Your task to perform on an android device: open device folders in google photos Image 0: 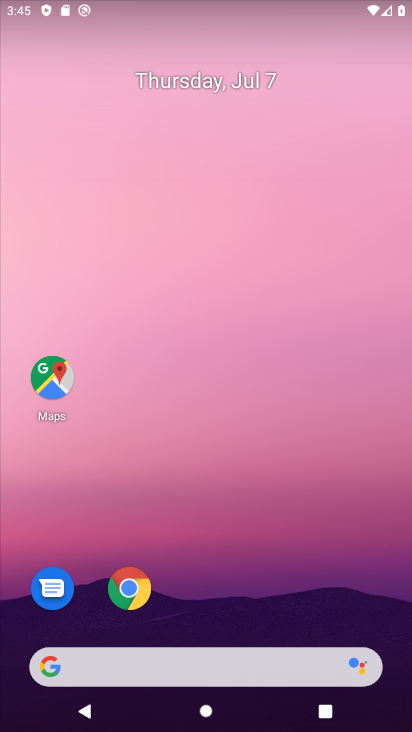
Step 0: press home button
Your task to perform on an android device: open device folders in google photos Image 1: 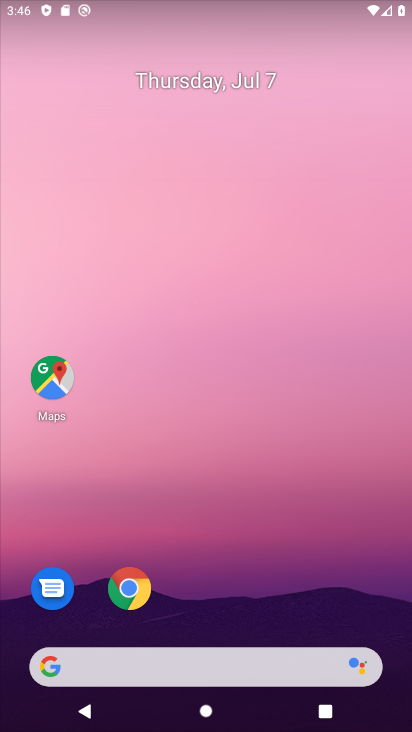
Step 1: drag from (231, 626) to (171, 155)
Your task to perform on an android device: open device folders in google photos Image 2: 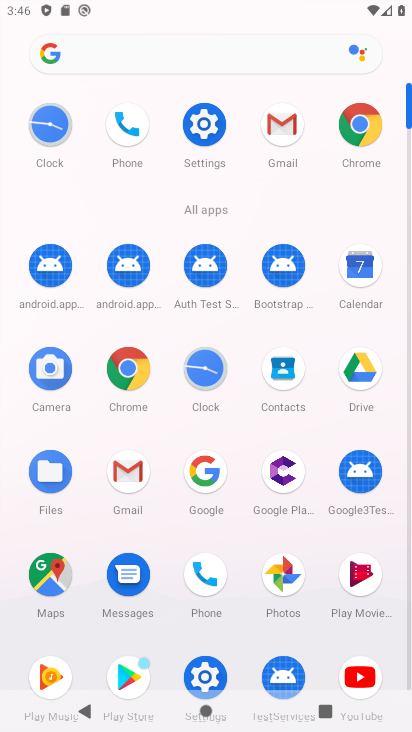
Step 2: click (279, 578)
Your task to perform on an android device: open device folders in google photos Image 3: 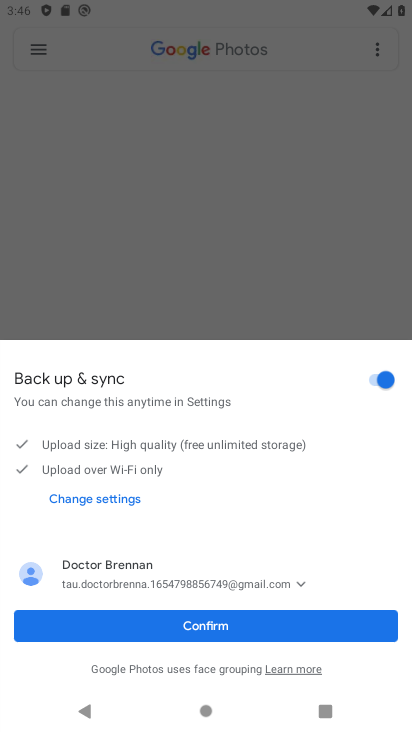
Step 3: click (188, 624)
Your task to perform on an android device: open device folders in google photos Image 4: 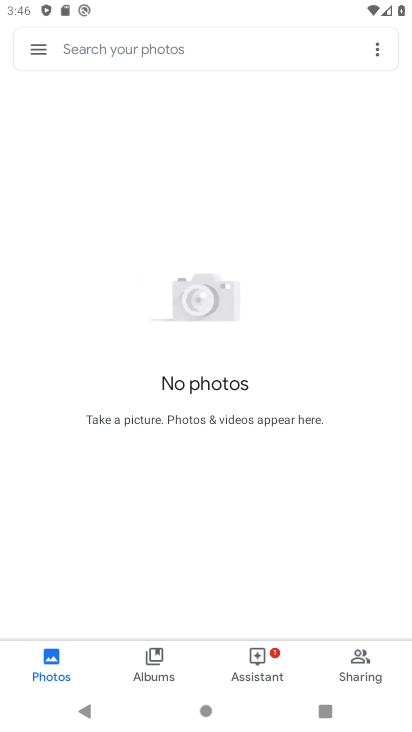
Step 4: click (40, 44)
Your task to perform on an android device: open device folders in google photos Image 5: 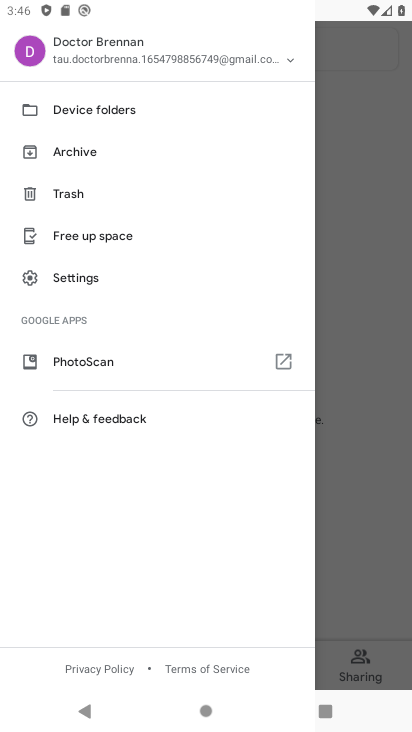
Step 5: click (88, 109)
Your task to perform on an android device: open device folders in google photos Image 6: 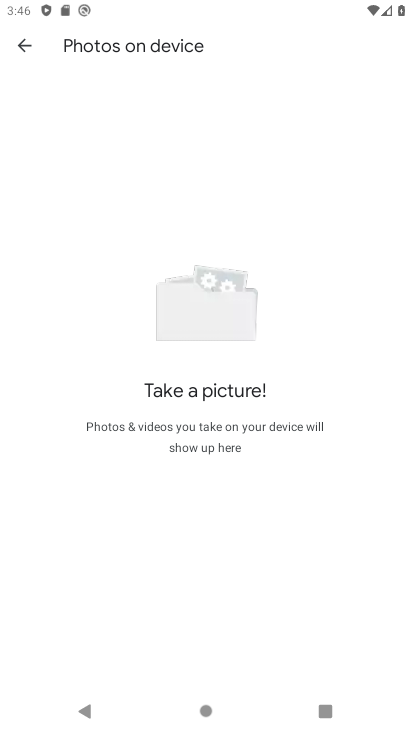
Step 6: task complete